Your task to perform on an android device: Go to location settings Image 0: 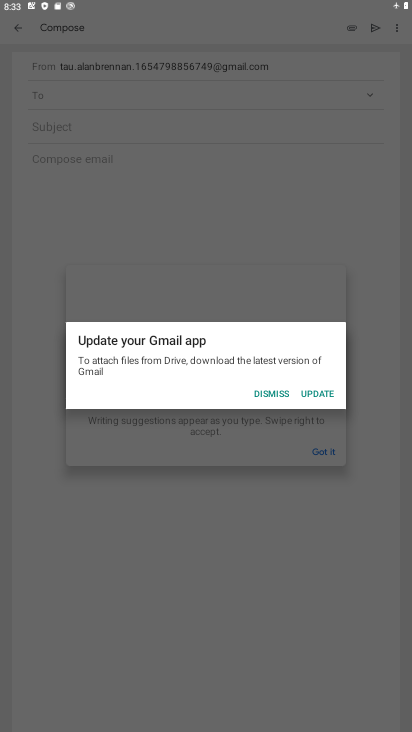
Step 0: press home button
Your task to perform on an android device: Go to location settings Image 1: 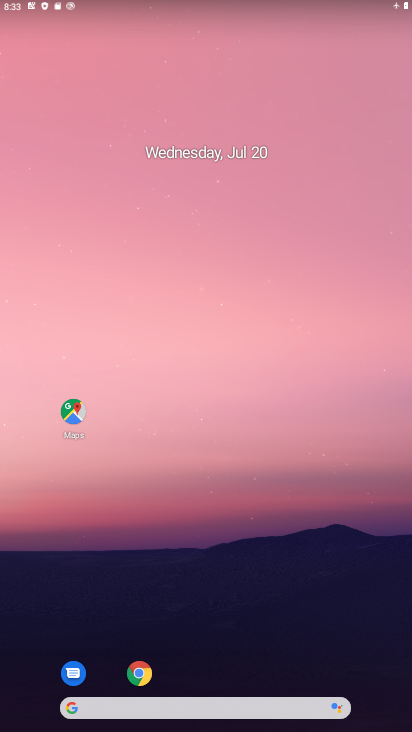
Step 1: drag from (223, 727) to (223, 302)
Your task to perform on an android device: Go to location settings Image 2: 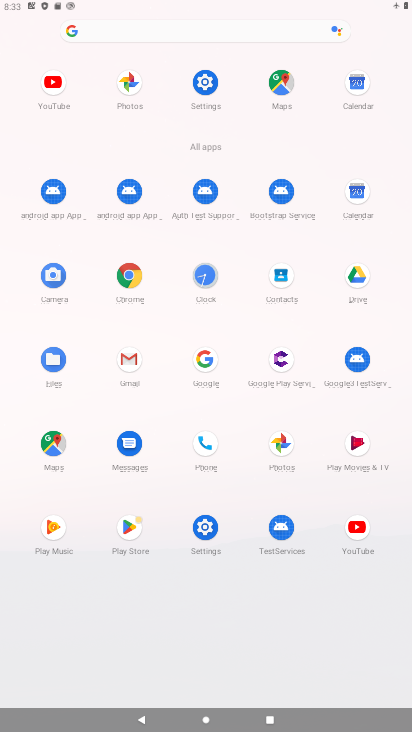
Step 2: click (204, 77)
Your task to perform on an android device: Go to location settings Image 3: 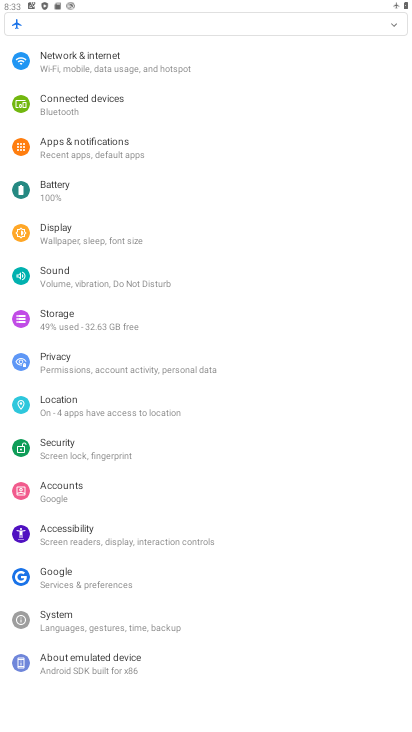
Step 3: click (57, 405)
Your task to perform on an android device: Go to location settings Image 4: 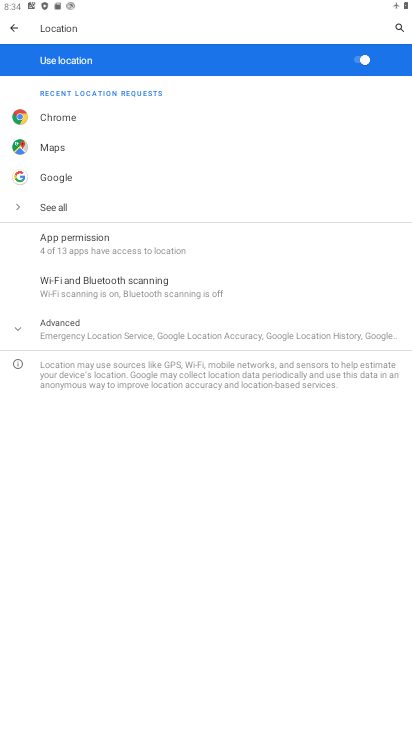
Step 4: task complete